Your task to perform on an android device: Open settings on Google Maps Image 0: 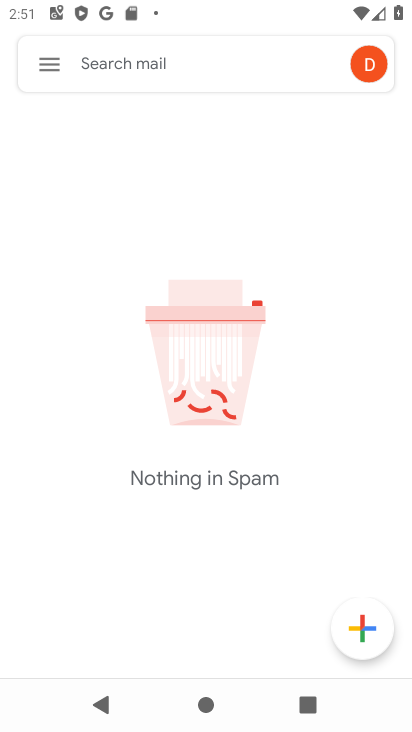
Step 0: press home button
Your task to perform on an android device: Open settings on Google Maps Image 1: 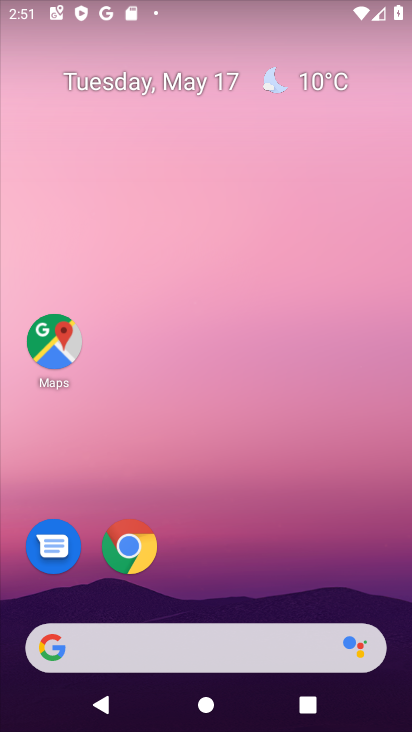
Step 1: click (54, 352)
Your task to perform on an android device: Open settings on Google Maps Image 2: 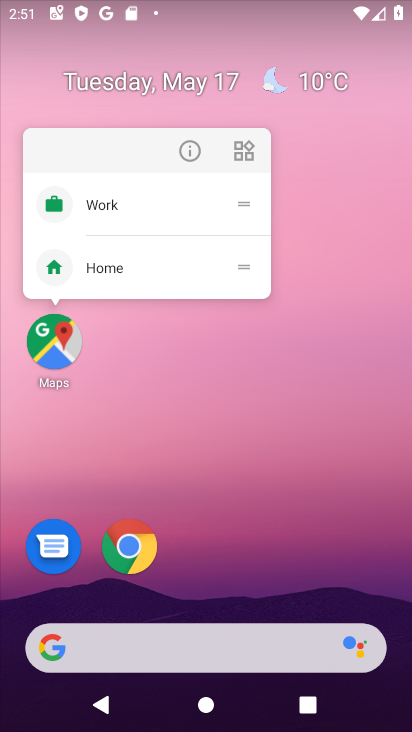
Step 2: click (55, 353)
Your task to perform on an android device: Open settings on Google Maps Image 3: 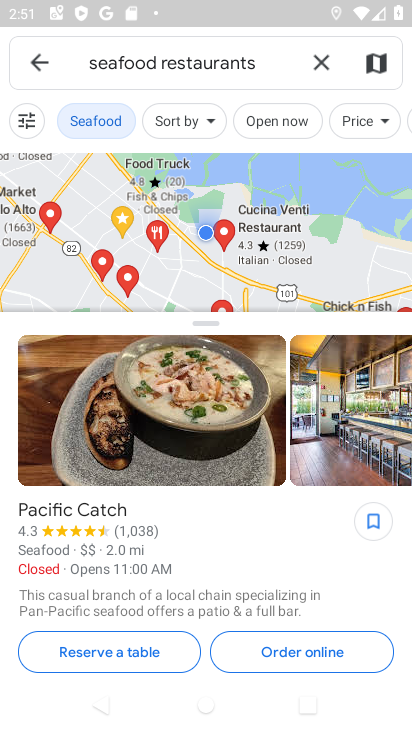
Step 3: click (39, 59)
Your task to perform on an android device: Open settings on Google Maps Image 4: 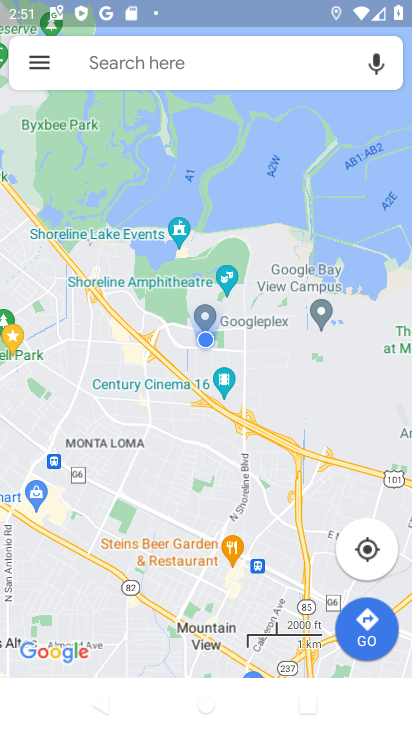
Step 4: click (38, 65)
Your task to perform on an android device: Open settings on Google Maps Image 5: 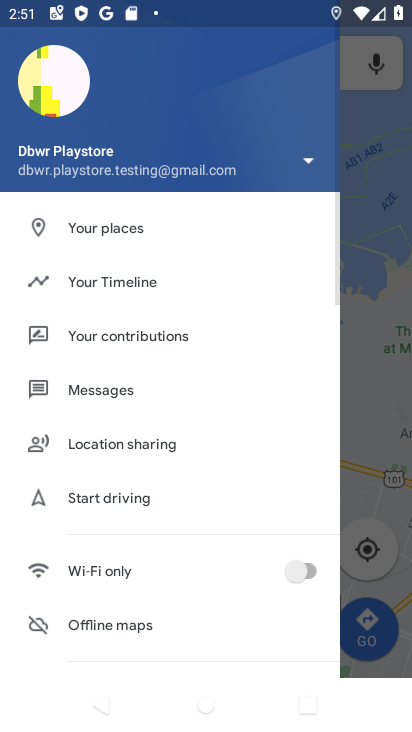
Step 5: drag from (104, 580) to (166, 332)
Your task to perform on an android device: Open settings on Google Maps Image 6: 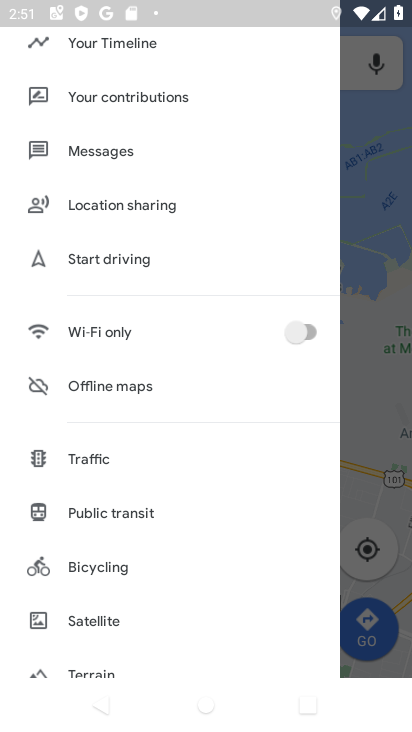
Step 6: drag from (113, 623) to (166, 347)
Your task to perform on an android device: Open settings on Google Maps Image 7: 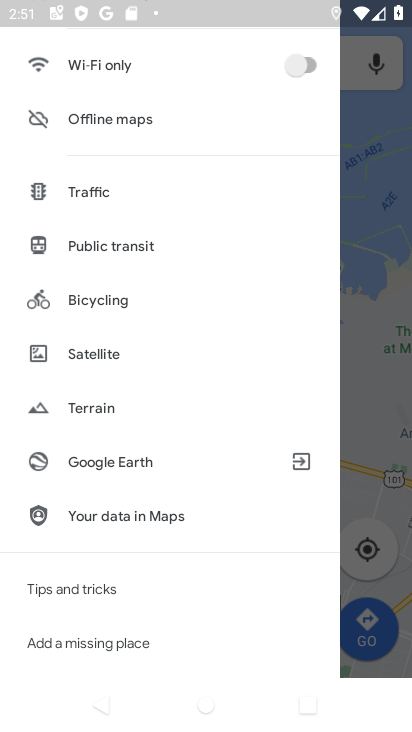
Step 7: drag from (95, 614) to (157, 292)
Your task to perform on an android device: Open settings on Google Maps Image 8: 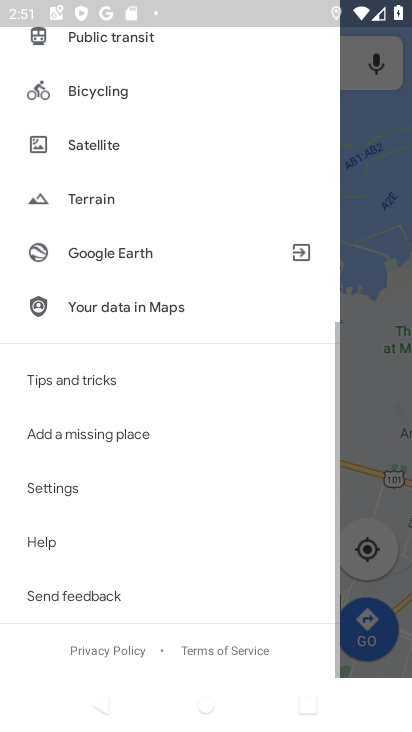
Step 8: click (75, 491)
Your task to perform on an android device: Open settings on Google Maps Image 9: 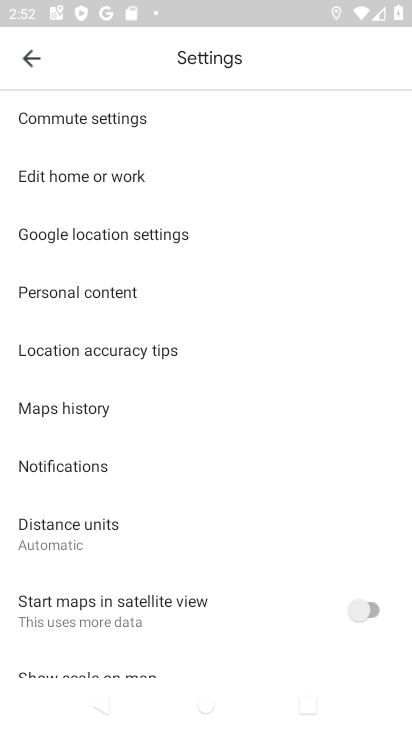
Step 9: task complete